Your task to perform on an android device: Clear the shopping cart on costco.com. Search for "logitech g903" on costco.com, select the first entry, add it to the cart, then select checkout. Image 0: 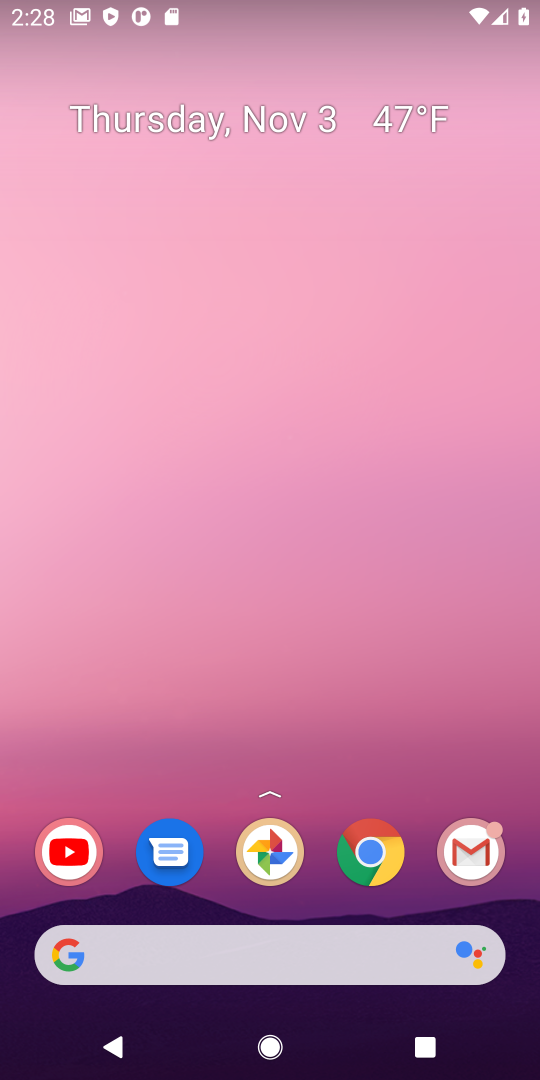
Step 0: click (365, 853)
Your task to perform on an android device: Clear the shopping cart on costco.com. Search for "logitech g903" on costco.com, select the first entry, add it to the cart, then select checkout. Image 1: 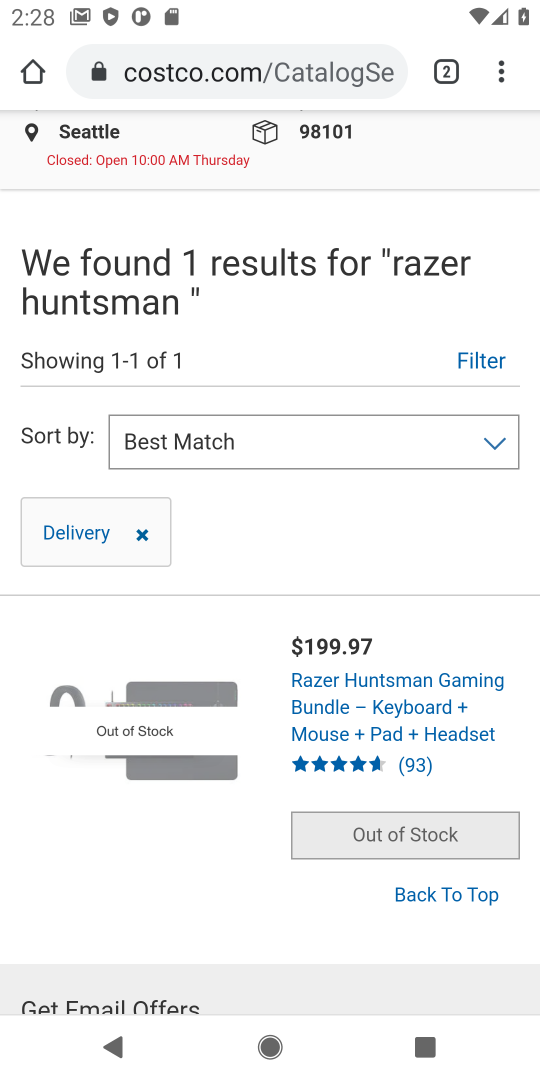
Step 1: drag from (385, 268) to (447, 790)
Your task to perform on an android device: Clear the shopping cart on costco.com. Search for "logitech g903" on costco.com, select the first entry, add it to the cart, then select checkout. Image 2: 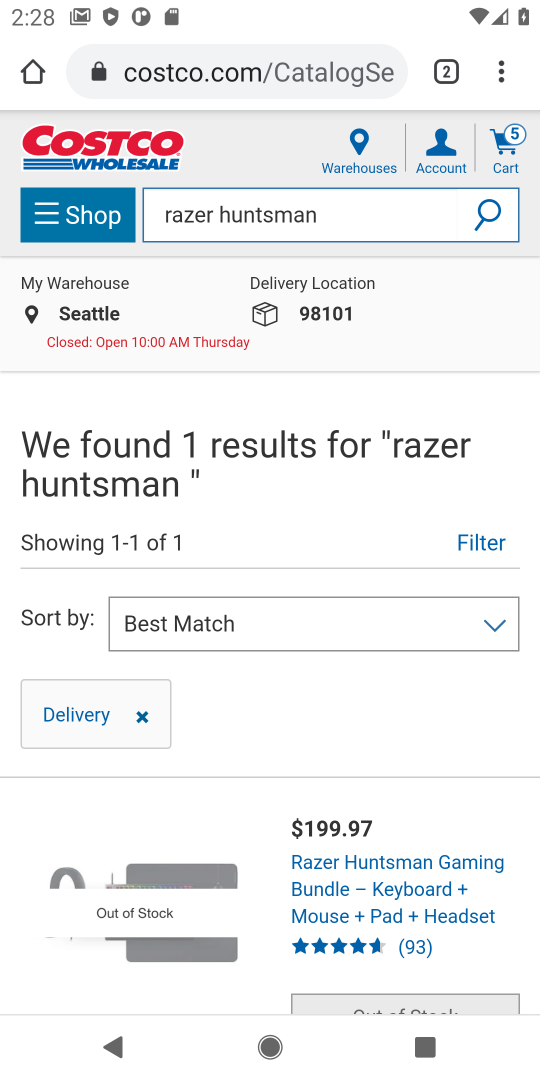
Step 2: click (504, 146)
Your task to perform on an android device: Clear the shopping cart on costco.com. Search for "logitech g903" on costco.com, select the first entry, add it to the cart, then select checkout. Image 3: 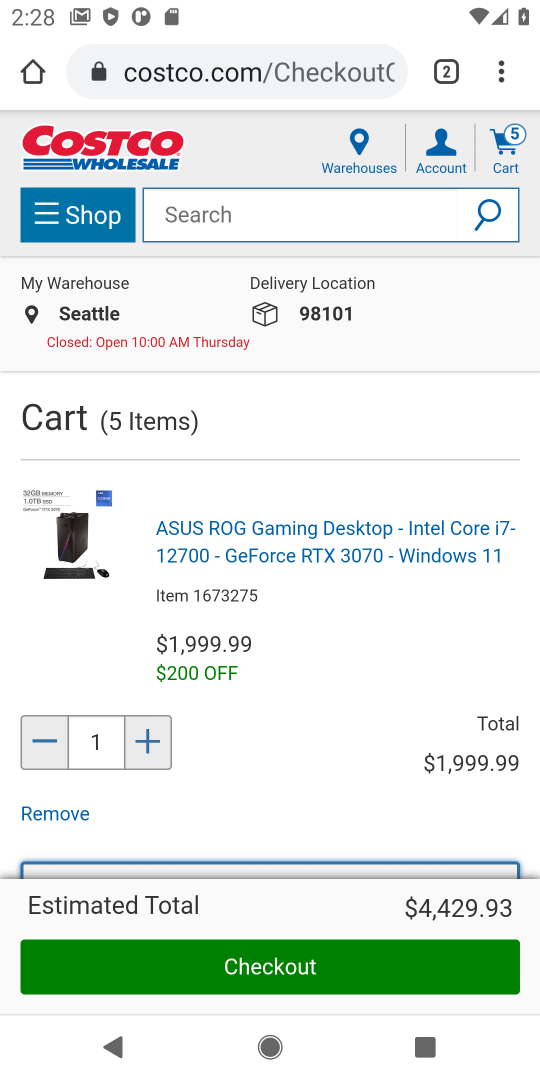
Step 3: drag from (307, 721) to (293, 367)
Your task to perform on an android device: Clear the shopping cart on costco.com. Search for "logitech g903" on costco.com, select the first entry, add it to the cart, then select checkout. Image 4: 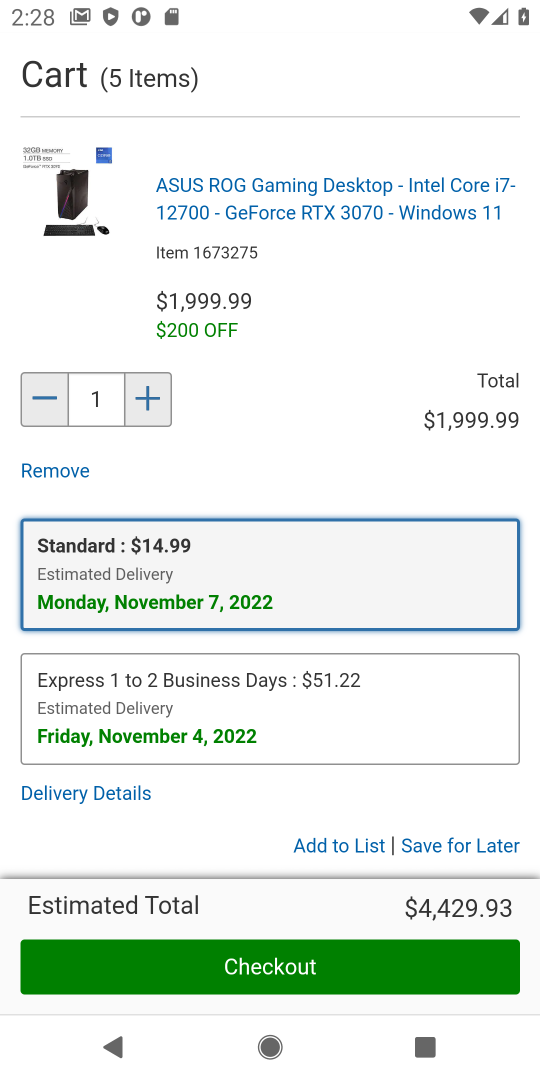
Step 4: click (61, 462)
Your task to perform on an android device: Clear the shopping cart on costco.com. Search for "logitech g903" on costco.com, select the first entry, add it to the cart, then select checkout. Image 5: 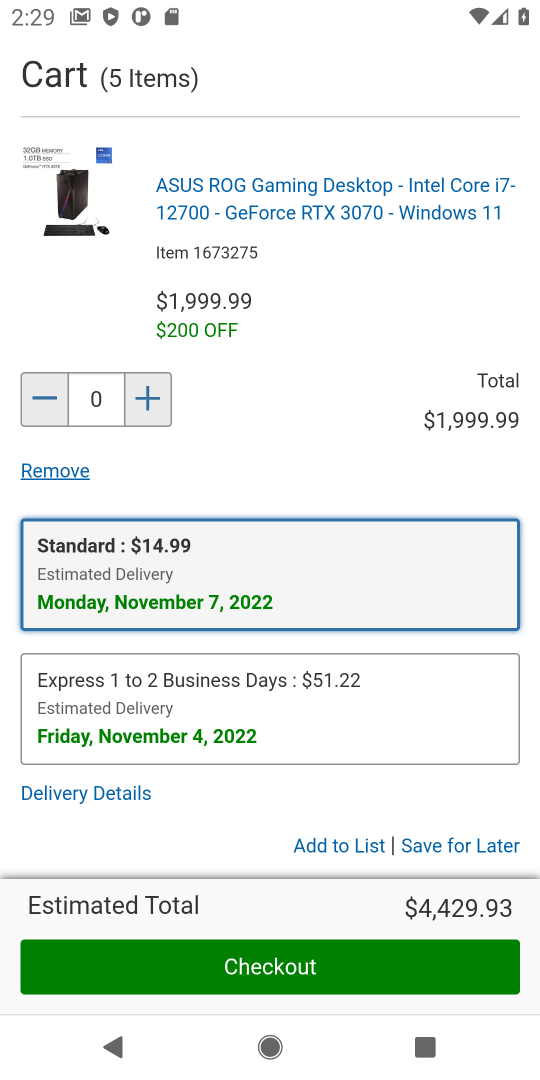
Step 5: click (465, 846)
Your task to perform on an android device: Clear the shopping cart on costco.com. Search for "logitech g903" on costco.com, select the first entry, add it to the cart, then select checkout. Image 6: 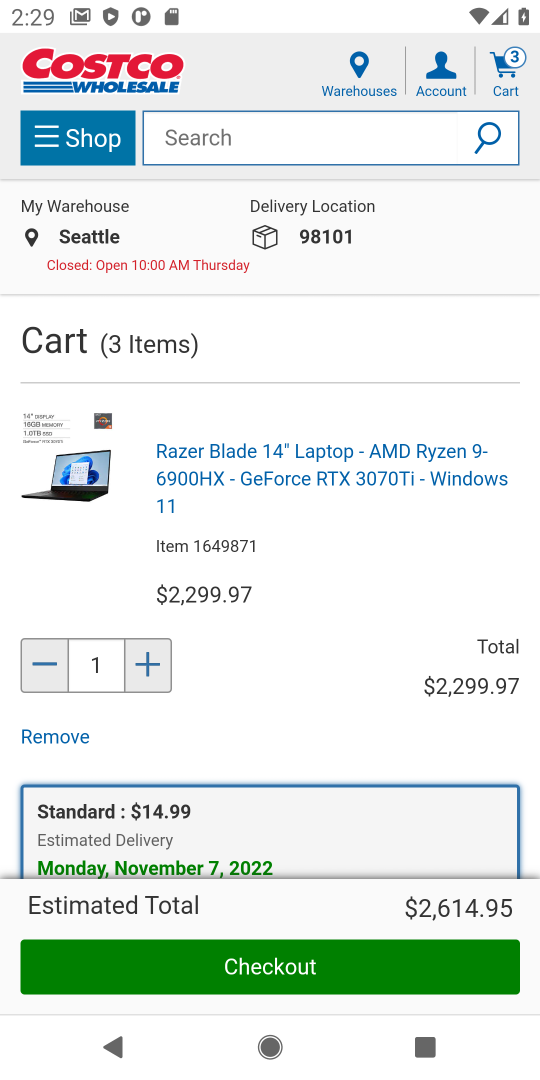
Step 6: drag from (341, 732) to (298, 390)
Your task to perform on an android device: Clear the shopping cart on costco.com. Search for "logitech g903" on costco.com, select the first entry, add it to the cart, then select checkout. Image 7: 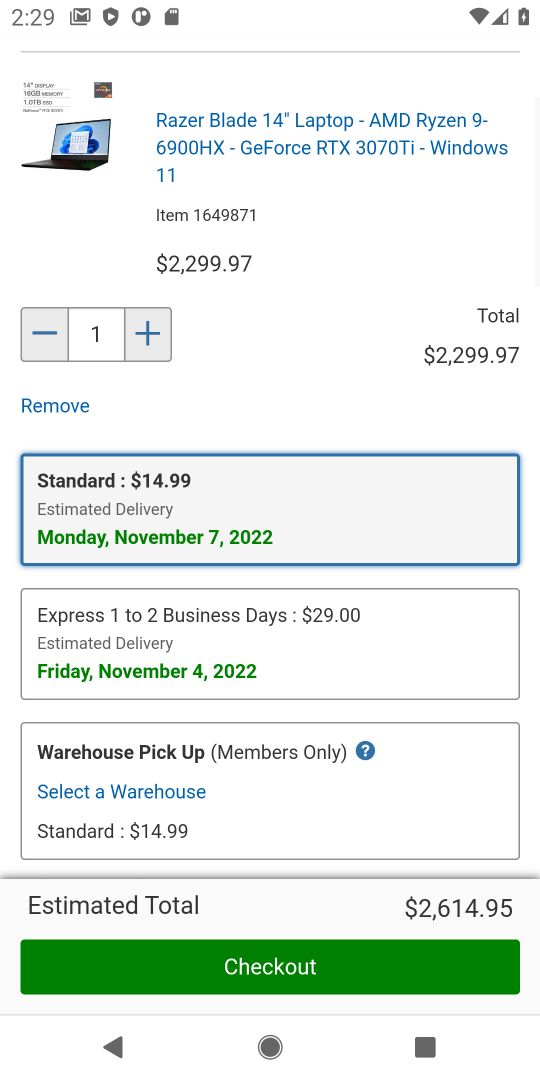
Step 7: drag from (295, 716) to (304, 374)
Your task to perform on an android device: Clear the shopping cart on costco.com. Search for "logitech g903" on costco.com, select the first entry, add it to the cart, then select checkout. Image 8: 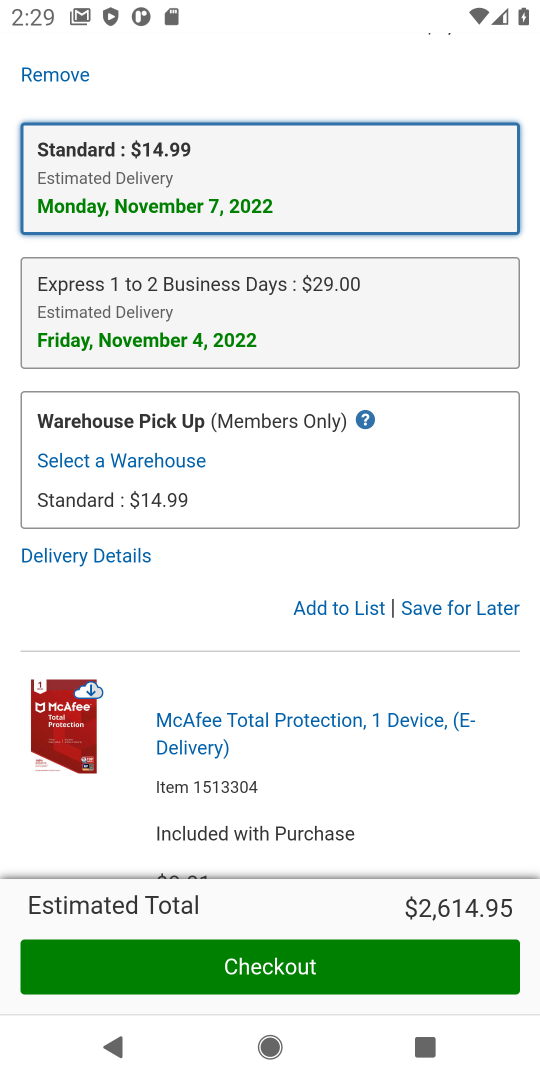
Step 8: click (429, 610)
Your task to perform on an android device: Clear the shopping cart on costco.com. Search for "logitech g903" on costco.com, select the first entry, add it to the cart, then select checkout. Image 9: 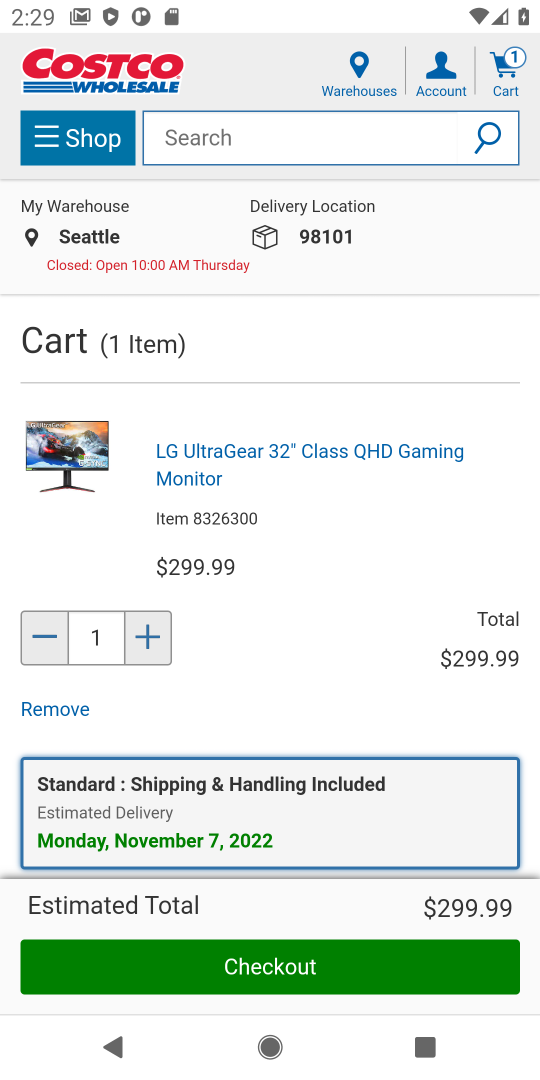
Step 9: drag from (272, 708) to (260, 454)
Your task to perform on an android device: Clear the shopping cart on costco.com. Search for "logitech g903" on costco.com, select the first entry, add it to the cart, then select checkout. Image 10: 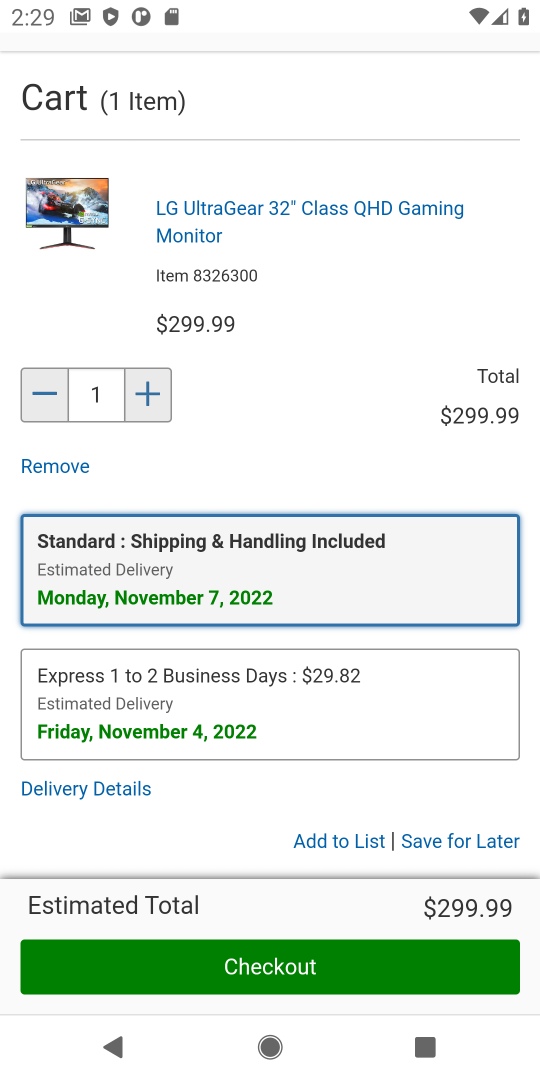
Step 10: click (440, 838)
Your task to perform on an android device: Clear the shopping cart on costco.com. Search for "logitech g903" on costco.com, select the first entry, add it to the cart, then select checkout. Image 11: 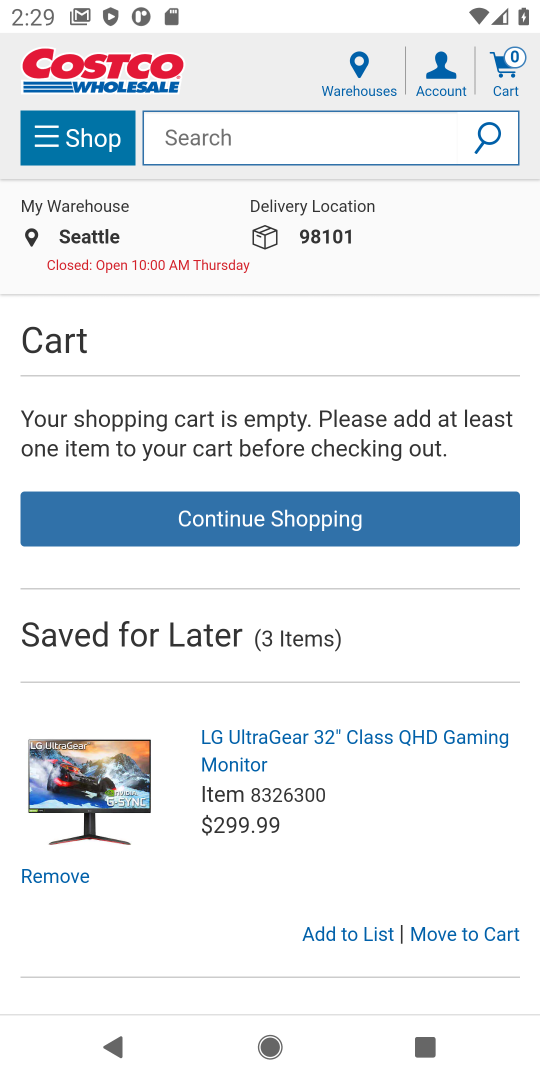
Step 11: click (308, 122)
Your task to perform on an android device: Clear the shopping cart on costco.com. Search for "logitech g903" on costco.com, select the first entry, add it to the cart, then select checkout. Image 12: 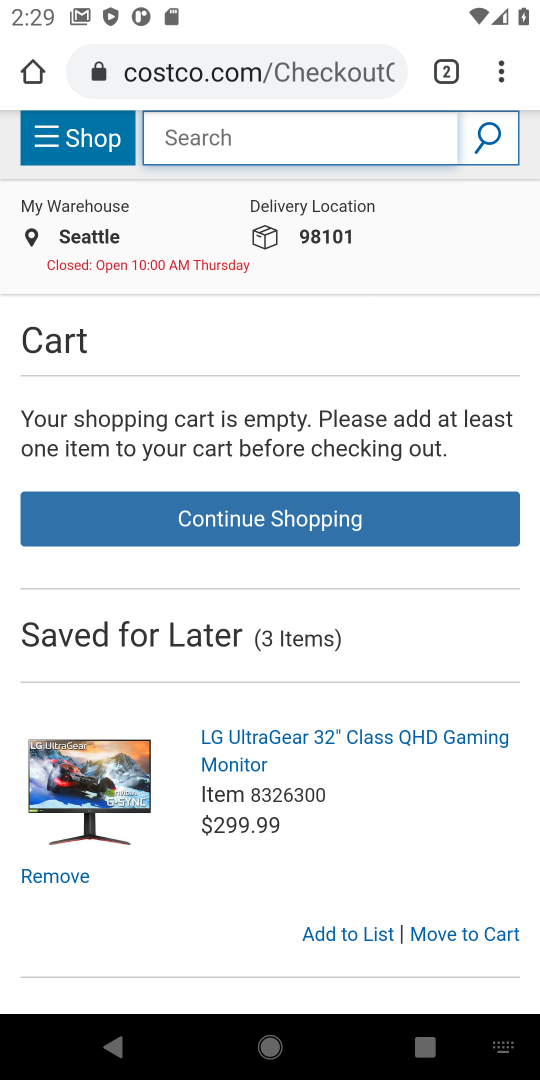
Step 12: type "logitech g903"
Your task to perform on an android device: Clear the shopping cart on costco.com. Search for "logitech g903" on costco.com, select the first entry, add it to the cart, then select checkout. Image 13: 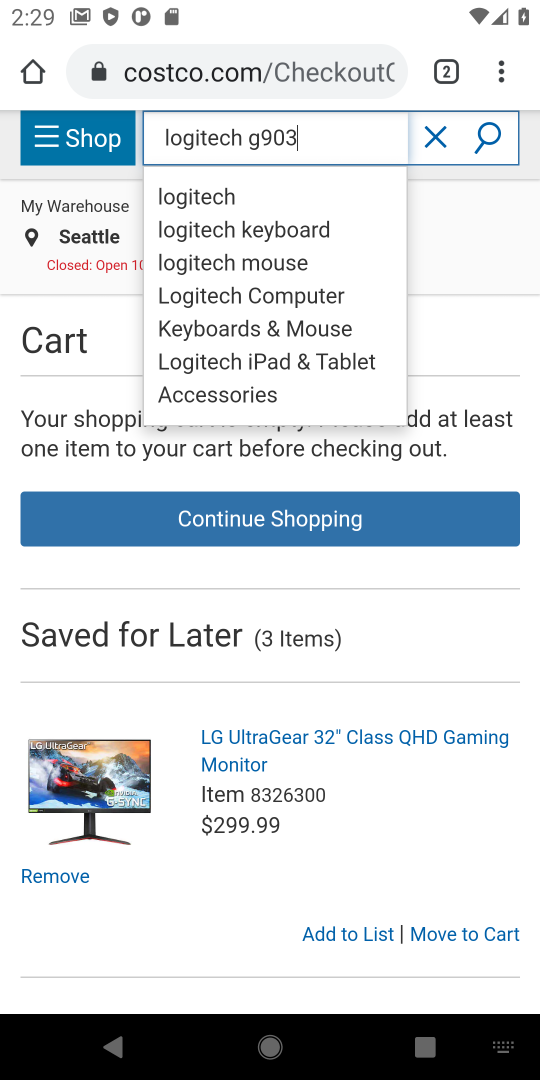
Step 13: click (504, 131)
Your task to perform on an android device: Clear the shopping cart on costco.com. Search for "logitech g903" on costco.com, select the first entry, add it to the cart, then select checkout. Image 14: 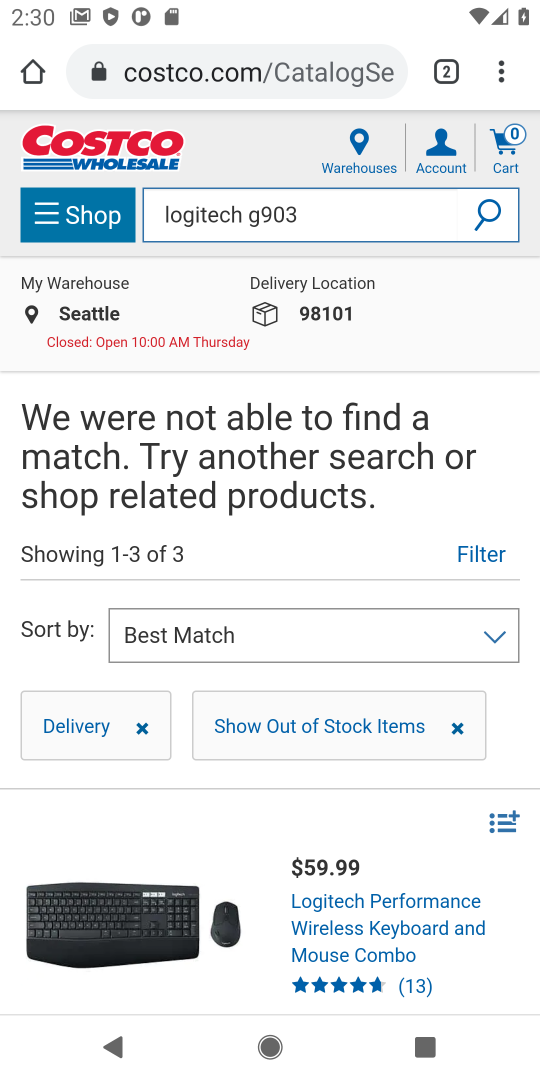
Step 14: task complete